Your task to perform on an android device: delete a single message in the gmail app Image 0: 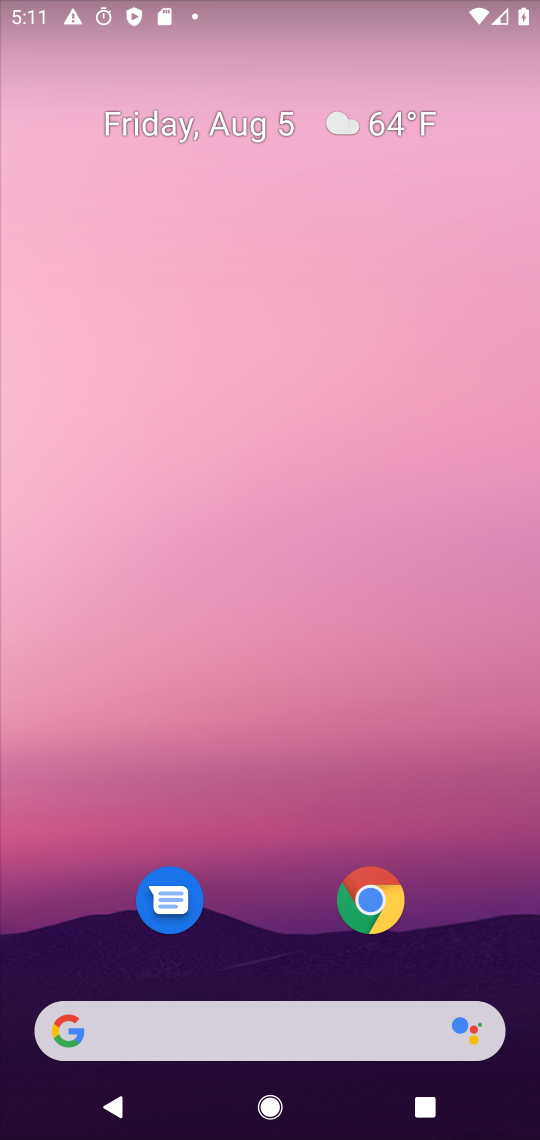
Step 0: drag from (314, 1015) to (272, 405)
Your task to perform on an android device: delete a single message in the gmail app Image 1: 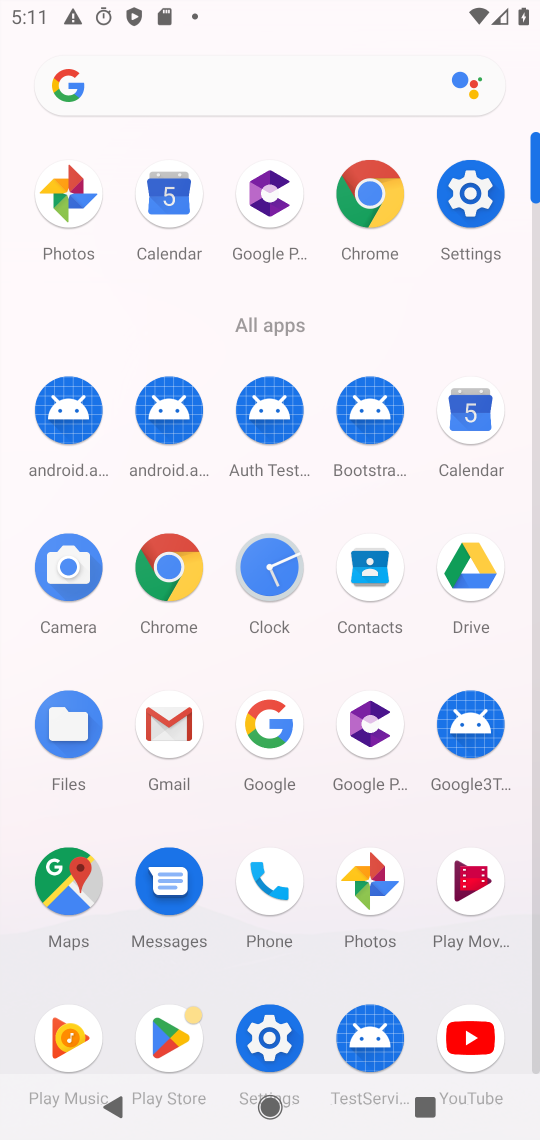
Step 1: click (166, 741)
Your task to perform on an android device: delete a single message in the gmail app Image 2: 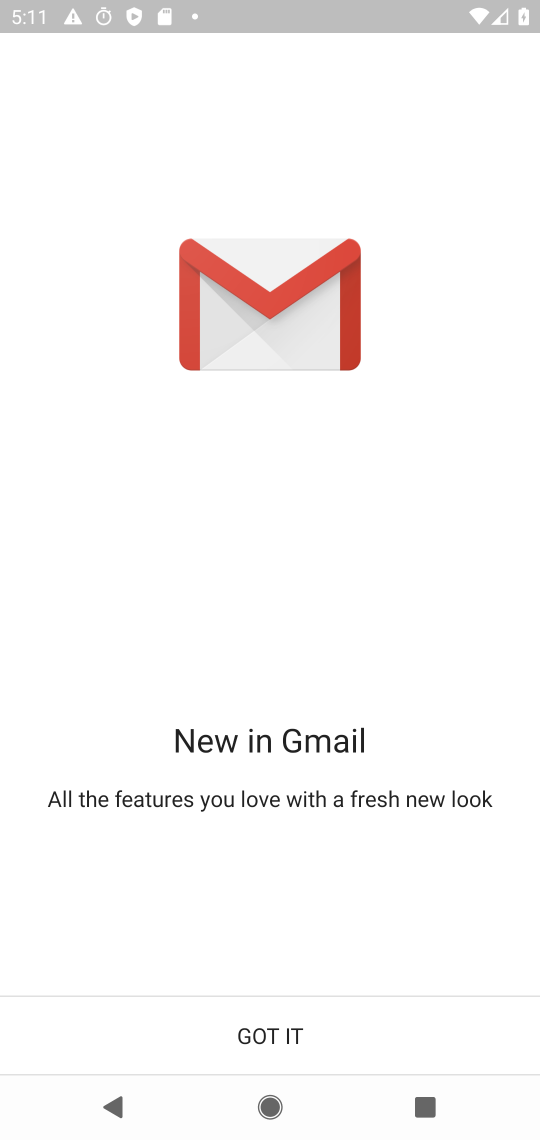
Step 2: click (314, 1005)
Your task to perform on an android device: delete a single message in the gmail app Image 3: 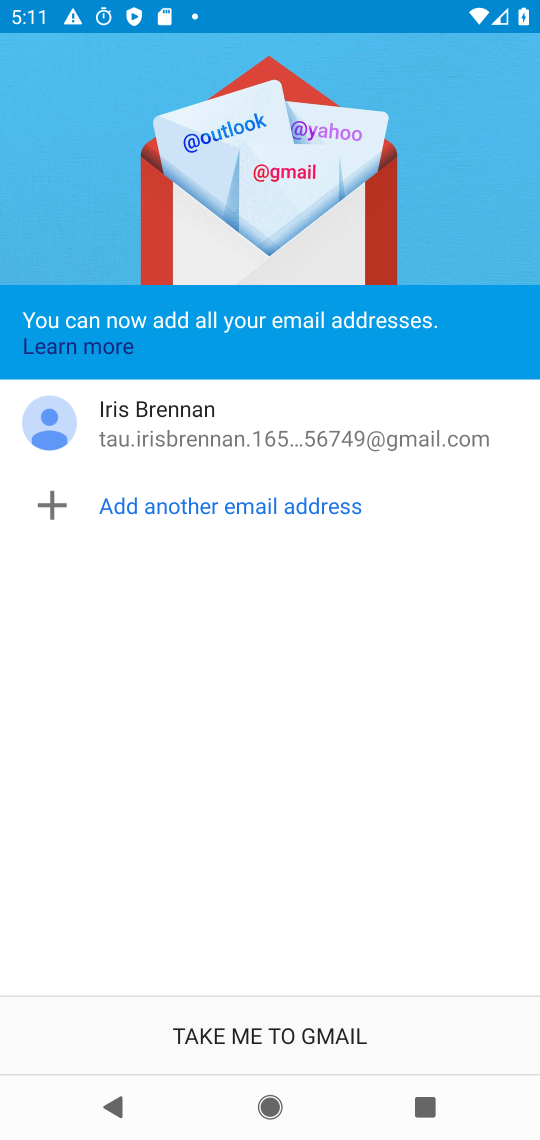
Step 3: click (354, 1024)
Your task to perform on an android device: delete a single message in the gmail app Image 4: 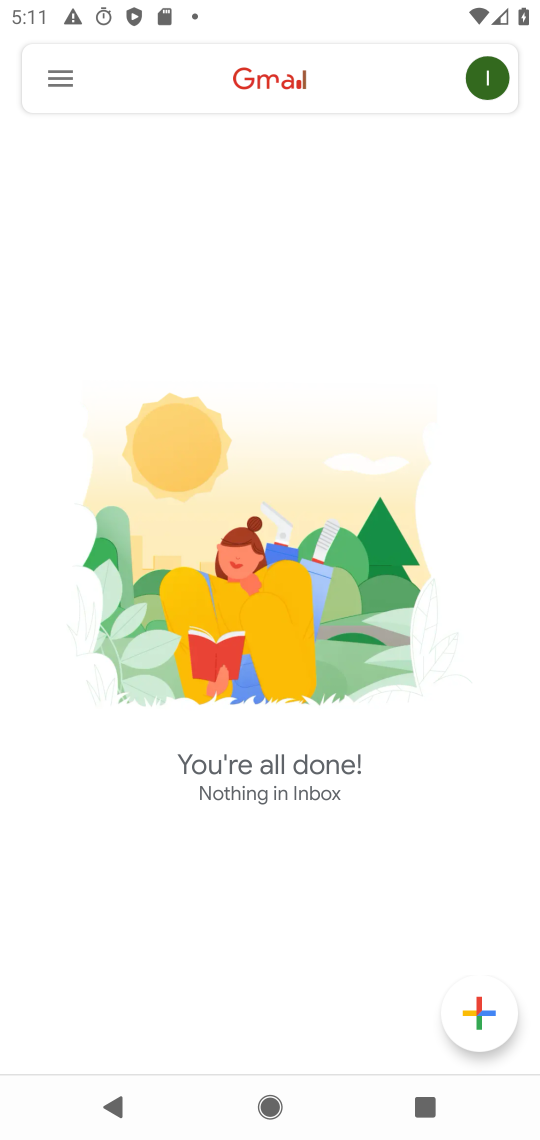
Step 4: click (58, 72)
Your task to perform on an android device: delete a single message in the gmail app Image 5: 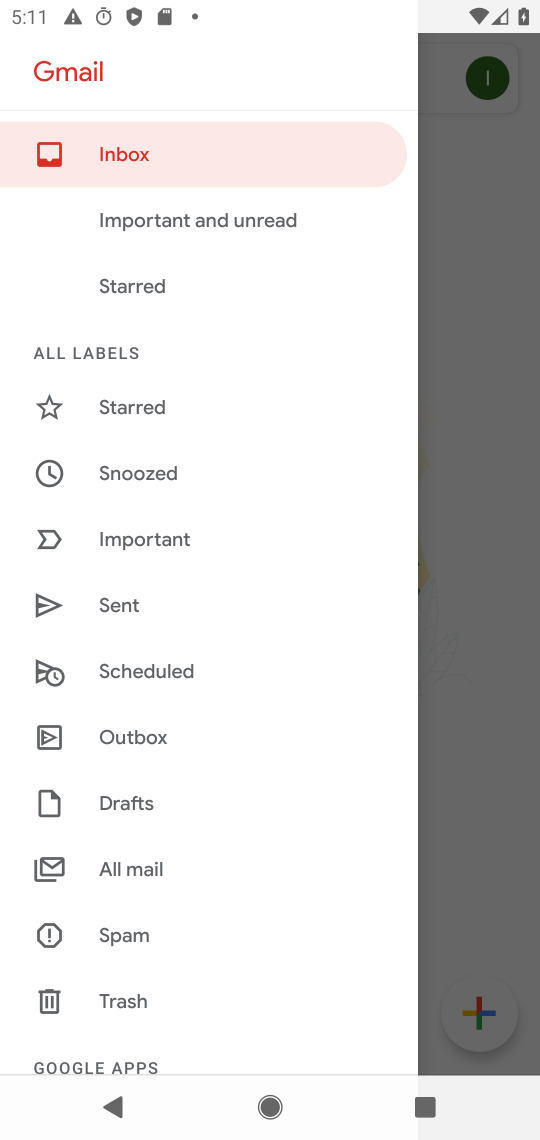
Step 5: click (159, 876)
Your task to perform on an android device: delete a single message in the gmail app Image 6: 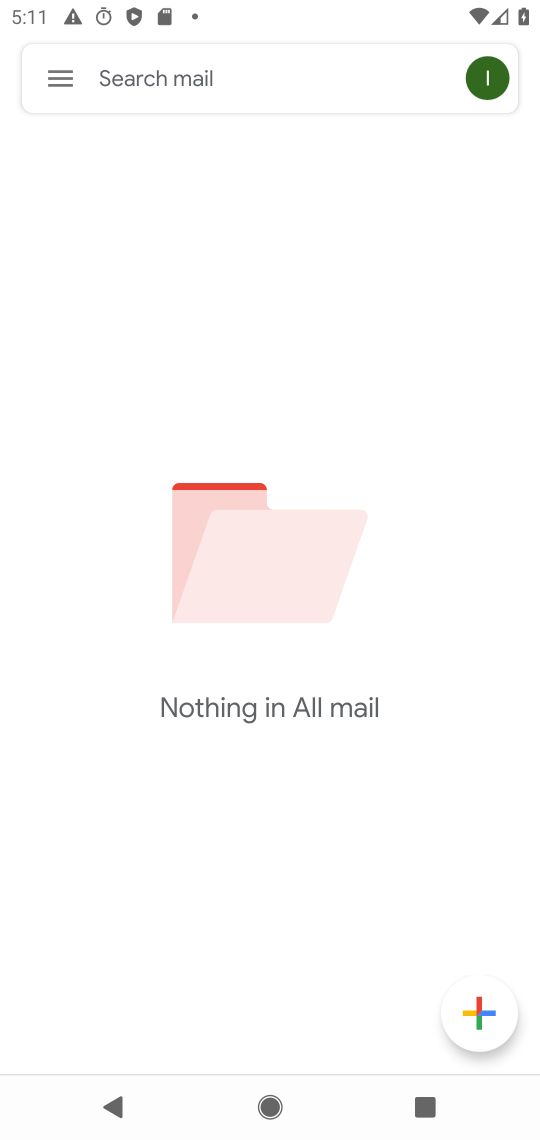
Step 6: task complete